Your task to perform on an android device: change the clock style Image 0: 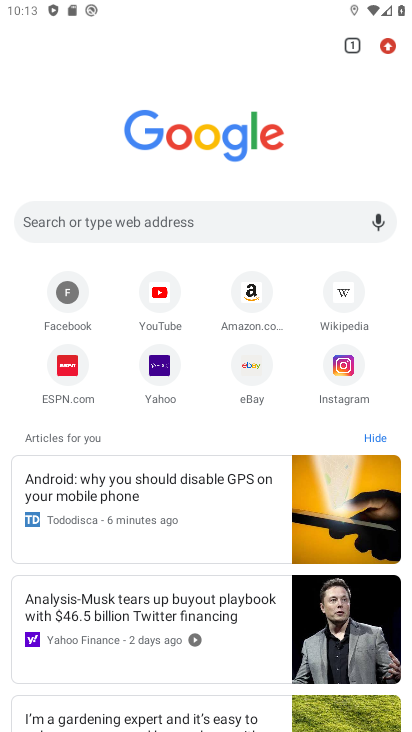
Step 0: press back button
Your task to perform on an android device: change the clock style Image 1: 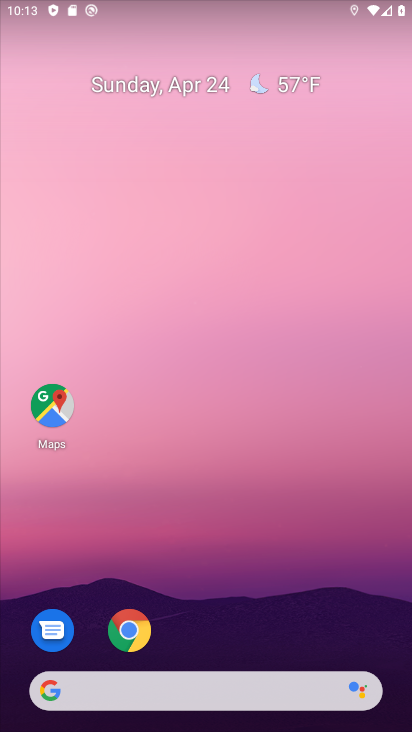
Step 1: drag from (205, 586) to (221, 66)
Your task to perform on an android device: change the clock style Image 2: 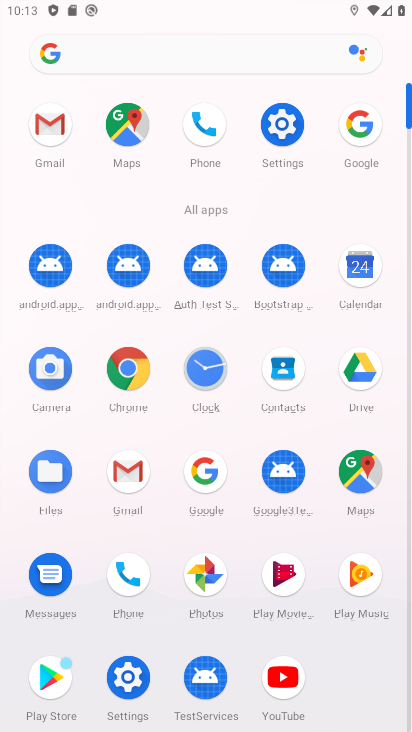
Step 2: click (205, 370)
Your task to perform on an android device: change the clock style Image 3: 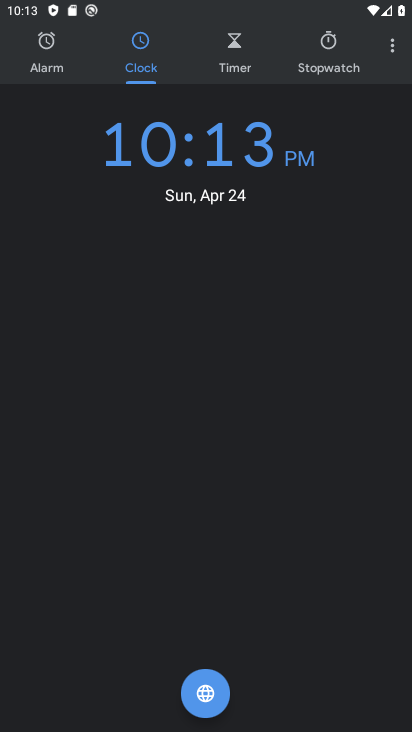
Step 3: click (393, 46)
Your task to perform on an android device: change the clock style Image 4: 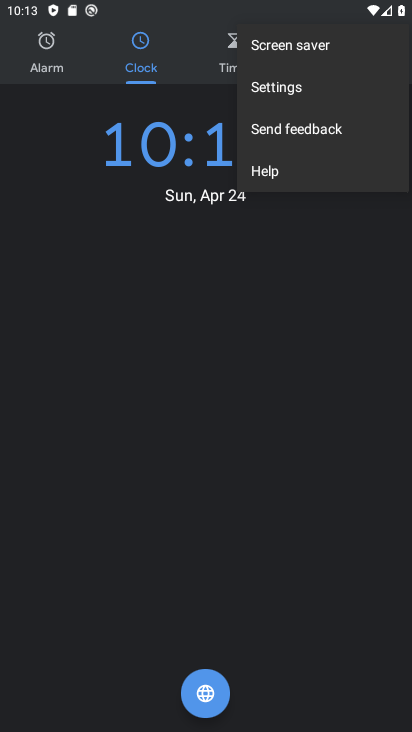
Step 4: click (292, 88)
Your task to perform on an android device: change the clock style Image 5: 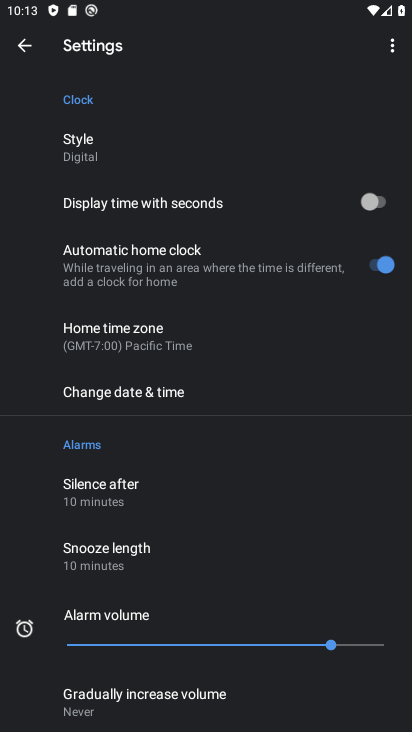
Step 5: click (97, 158)
Your task to perform on an android device: change the clock style Image 6: 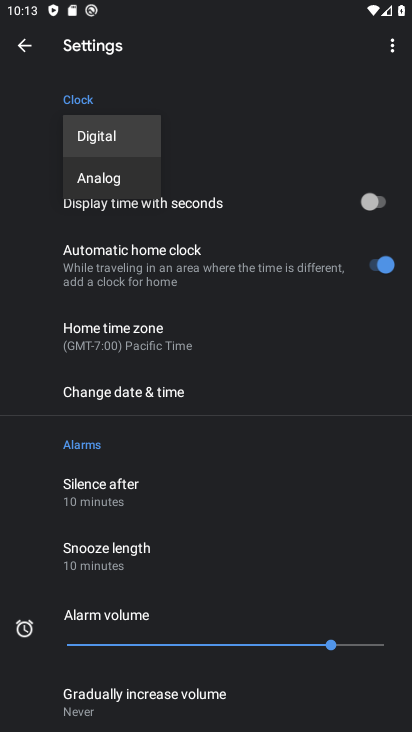
Step 6: click (111, 180)
Your task to perform on an android device: change the clock style Image 7: 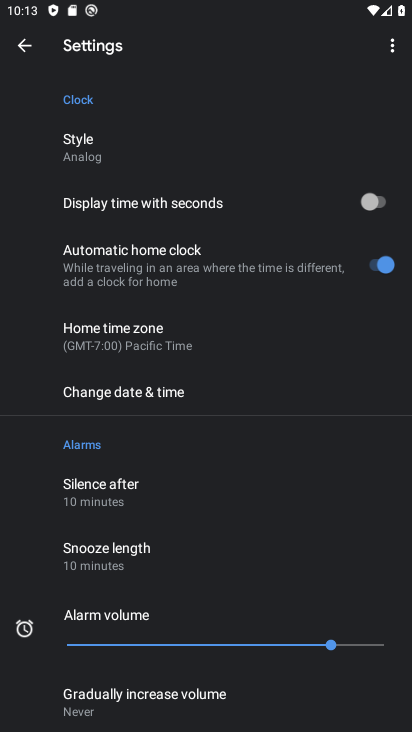
Step 7: task complete